Your task to perform on an android device: Do I have any events this weekend? Image 0: 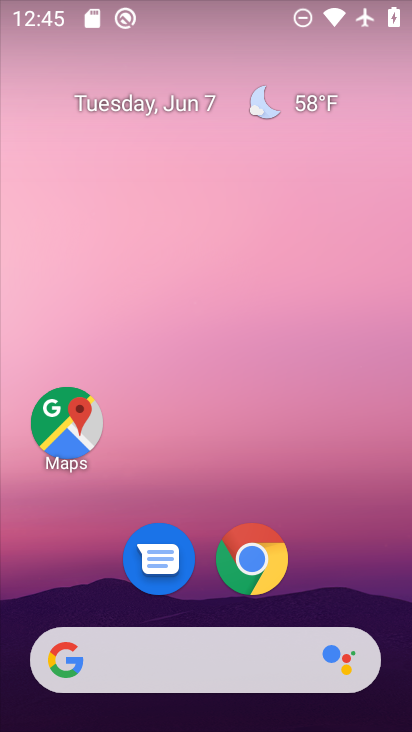
Step 0: drag from (392, 623) to (346, 82)
Your task to perform on an android device: Do I have any events this weekend? Image 1: 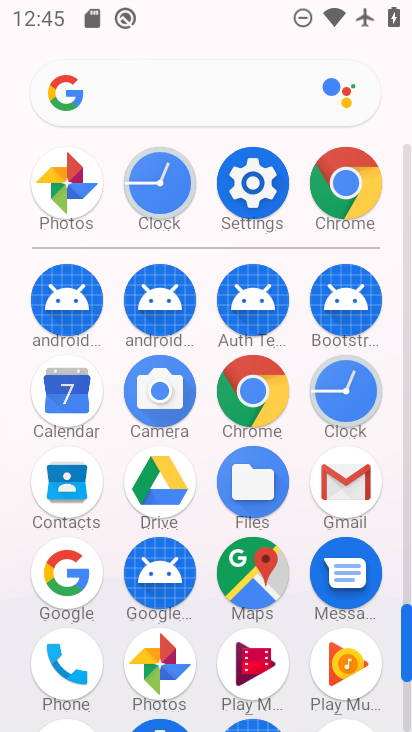
Step 1: click (69, 390)
Your task to perform on an android device: Do I have any events this weekend? Image 2: 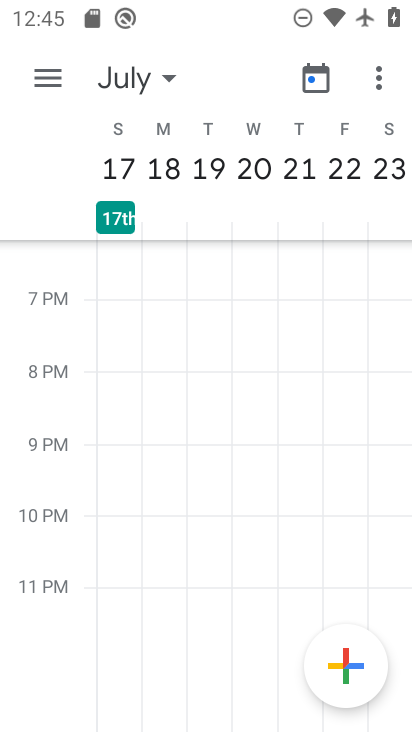
Step 2: click (44, 82)
Your task to perform on an android device: Do I have any events this weekend? Image 3: 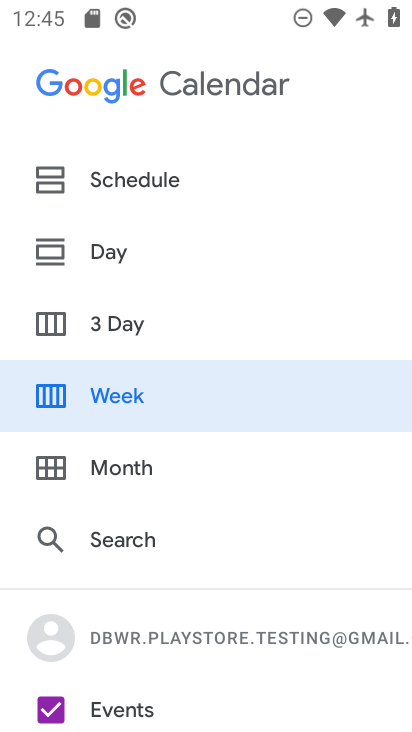
Step 3: click (153, 375)
Your task to perform on an android device: Do I have any events this weekend? Image 4: 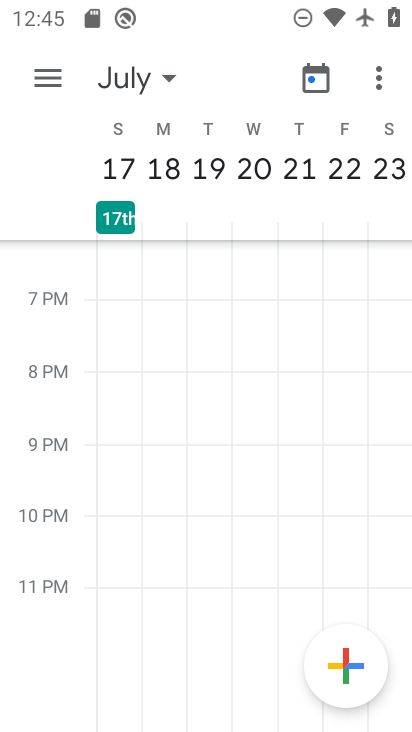
Step 4: click (163, 76)
Your task to perform on an android device: Do I have any events this weekend? Image 5: 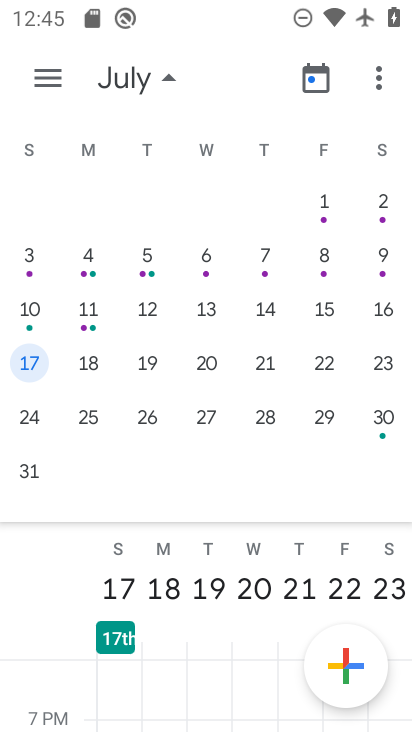
Step 5: drag from (94, 361) to (402, 380)
Your task to perform on an android device: Do I have any events this weekend? Image 6: 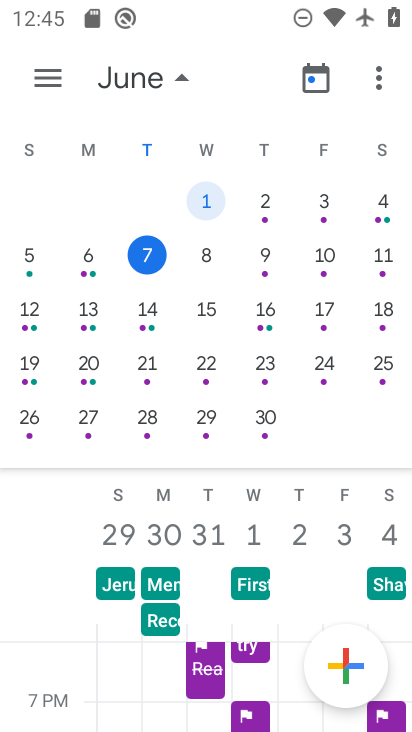
Step 6: click (146, 252)
Your task to perform on an android device: Do I have any events this weekend? Image 7: 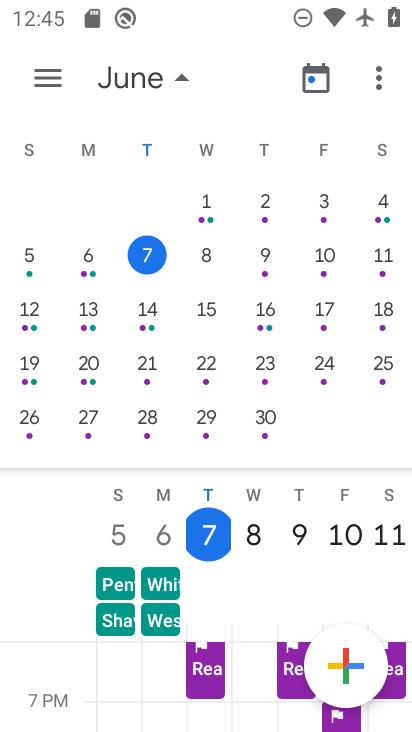
Step 7: task complete